Your task to perform on an android device: What's the weather going to be tomorrow? Image 0: 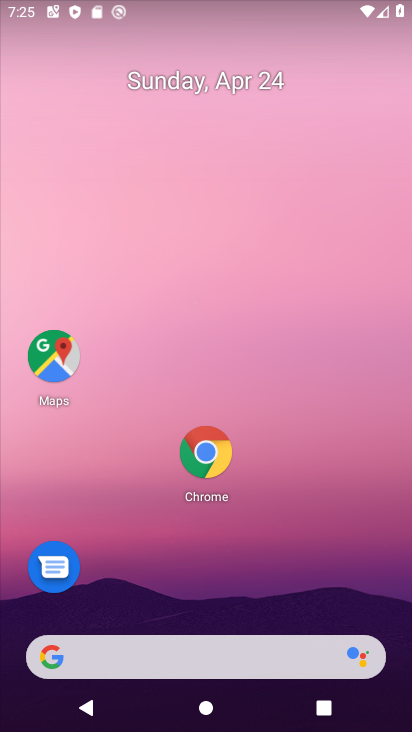
Step 0: drag from (336, 576) to (265, 150)
Your task to perform on an android device: What's the weather going to be tomorrow? Image 1: 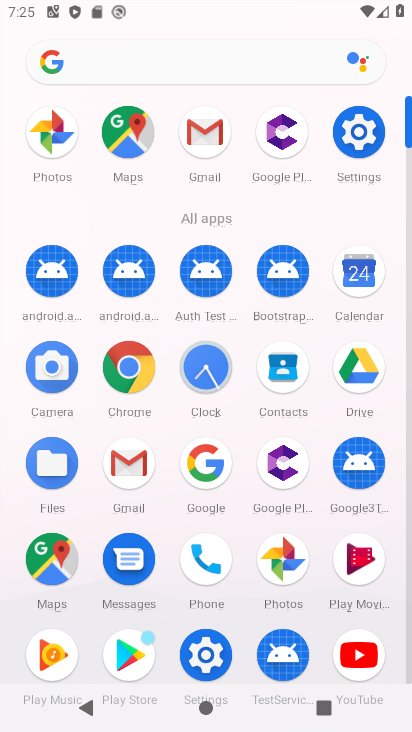
Step 1: click (202, 464)
Your task to perform on an android device: What's the weather going to be tomorrow? Image 2: 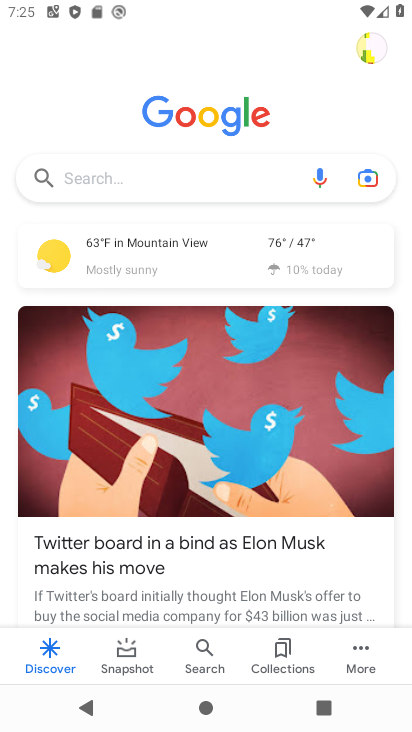
Step 2: click (285, 256)
Your task to perform on an android device: What's the weather going to be tomorrow? Image 3: 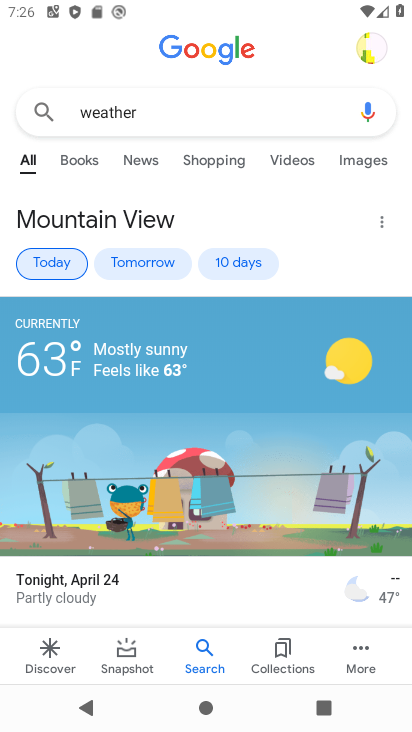
Step 3: task complete